Your task to perform on an android device: turn on wifi Image 0: 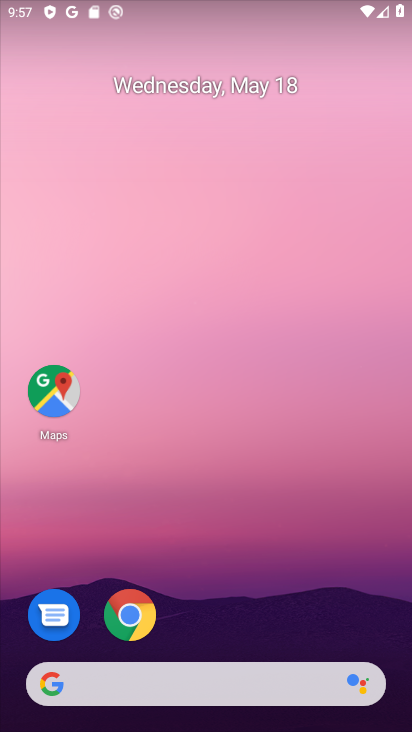
Step 0: drag from (334, 8) to (320, 519)
Your task to perform on an android device: turn on wifi Image 1: 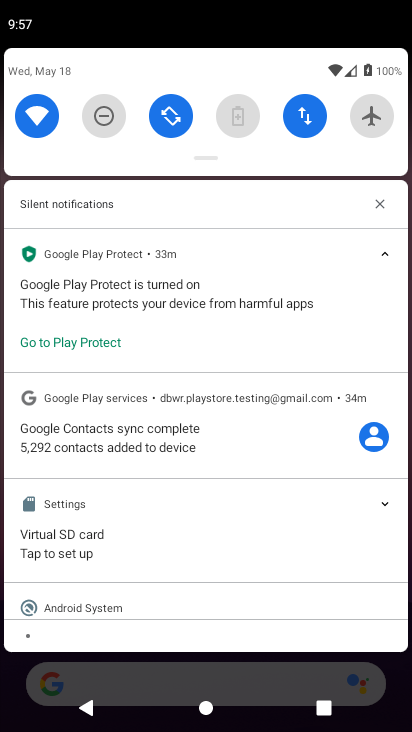
Step 1: task complete